Your task to perform on an android device: Open Amazon Image 0: 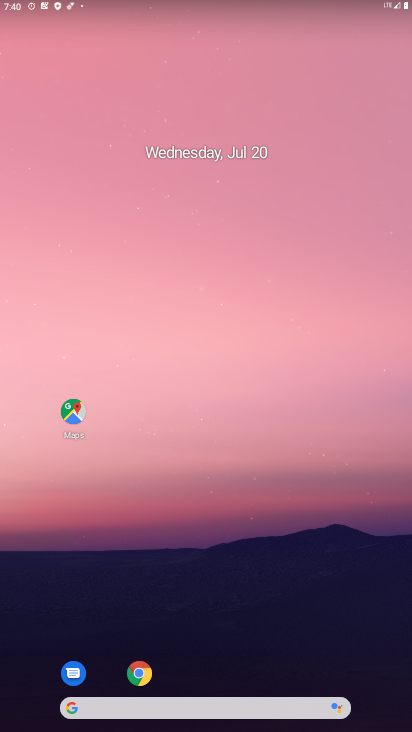
Step 0: drag from (346, 610) to (106, 63)
Your task to perform on an android device: Open Amazon Image 1: 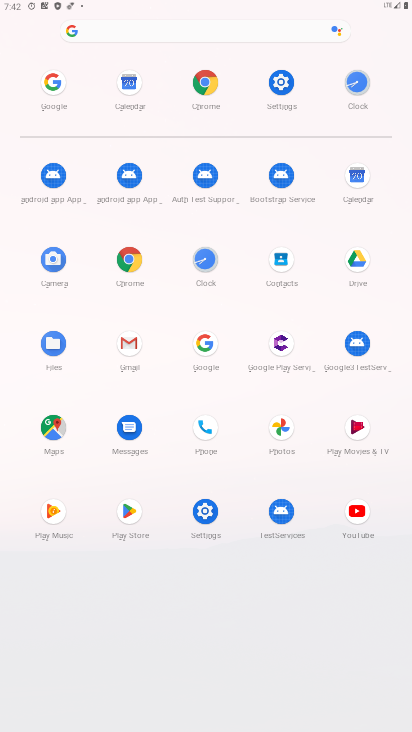
Step 1: click (205, 350)
Your task to perform on an android device: Open Amazon Image 2: 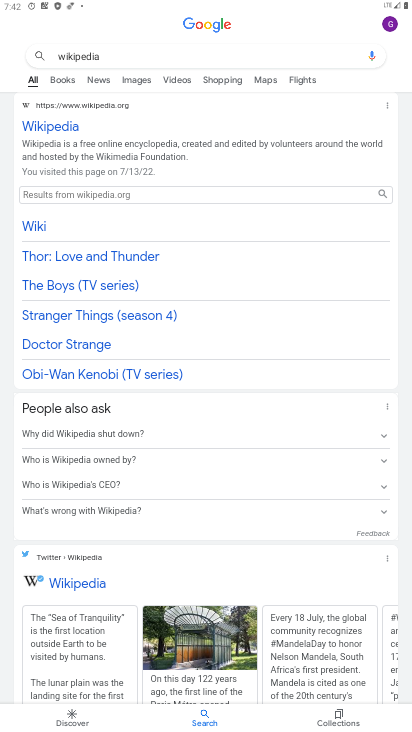
Step 2: press back button
Your task to perform on an android device: Open Amazon Image 3: 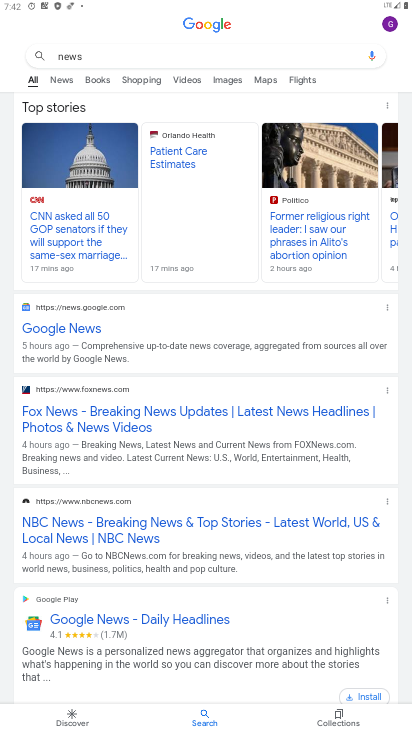
Step 3: click (141, 54)
Your task to perform on an android device: Open Amazon Image 4: 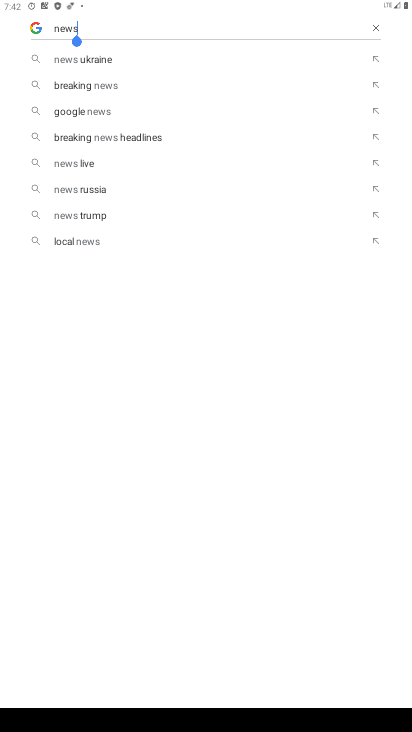
Step 4: click (374, 31)
Your task to perform on an android device: Open Amazon Image 5: 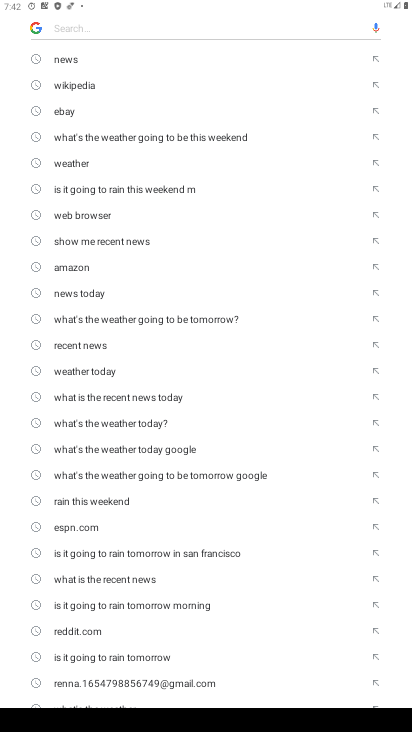
Step 5: click (59, 268)
Your task to perform on an android device: Open Amazon Image 6: 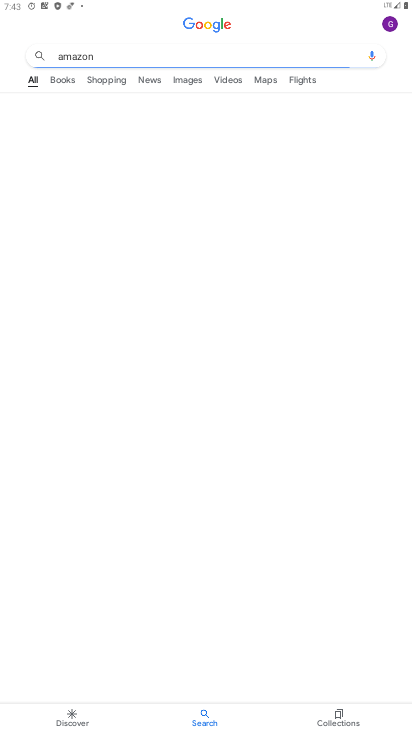
Step 6: task complete